Your task to perform on an android device: Go to Amazon Image 0: 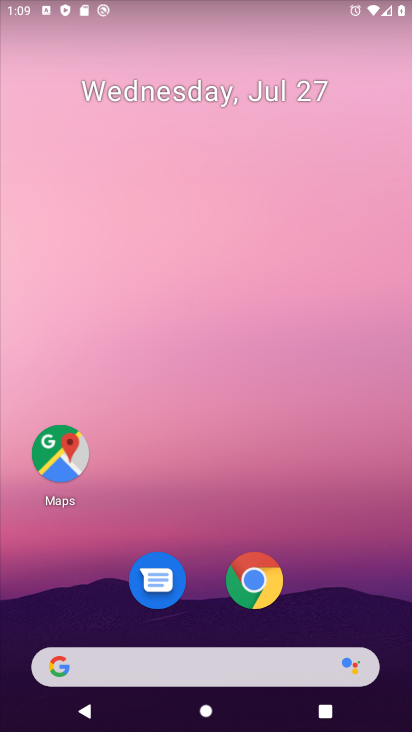
Step 0: click (248, 580)
Your task to perform on an android device: Go to Amazon Image 1: 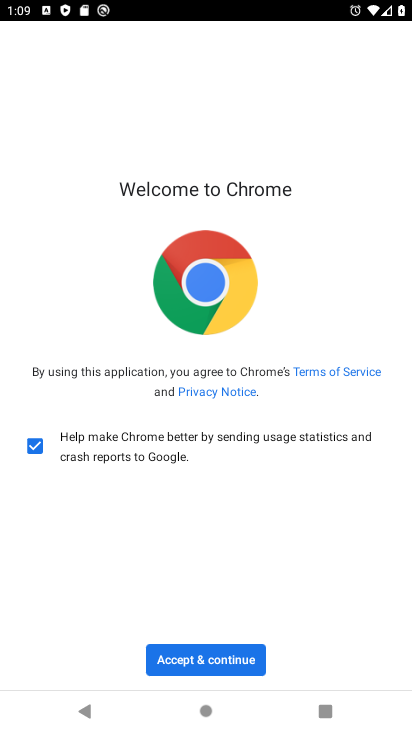
Step 1: click (216, 670)
Your task to perform on an android device: Go to Amazon Image 2: 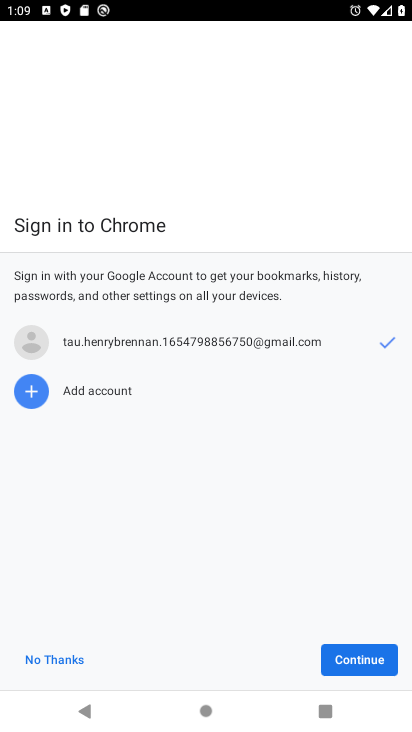
Step 2: click (349, 651)
Your task to perform on an android device: Go to Amazon Image 3: 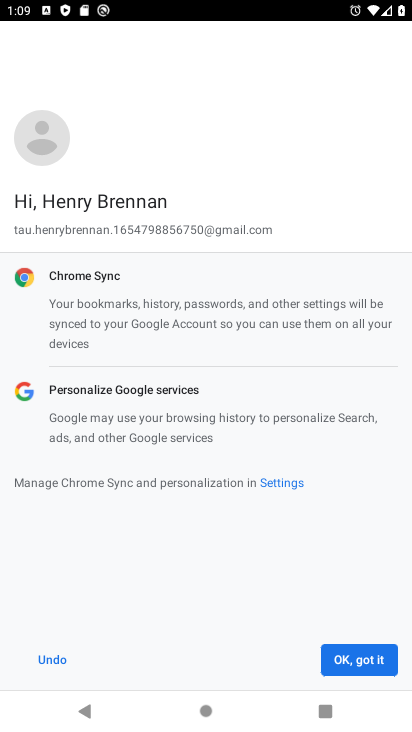
Step 3: click (339, 652)
Your task to perform on an android device: Go to Amazon Image 4: 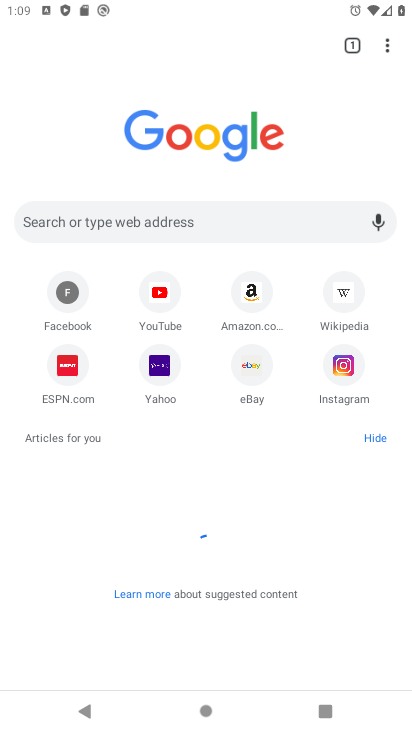
Step 4: click (265, 303)
Your task to perform on an android device: Go to Amazon Image 5: 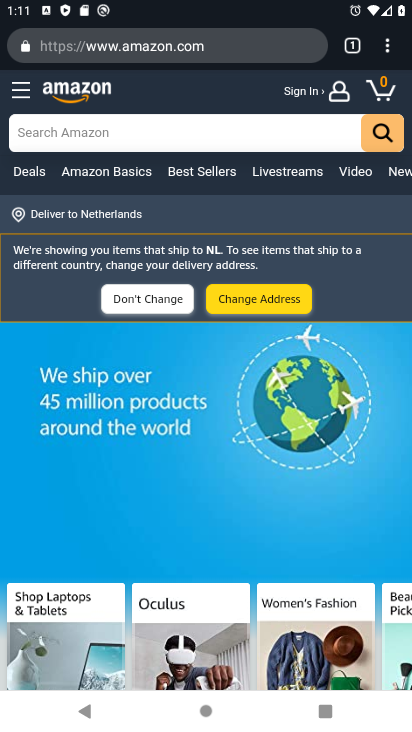
Step 5: task complete